Your task to perform on an android device: Open battery settings Image 0: 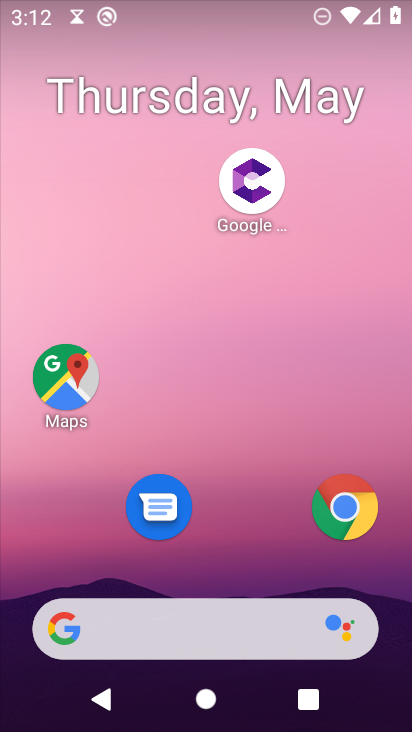
Step 0: drag from (258, 568) to (151, 210)
Your task to perform on an android device: Open battery settings Image 1: 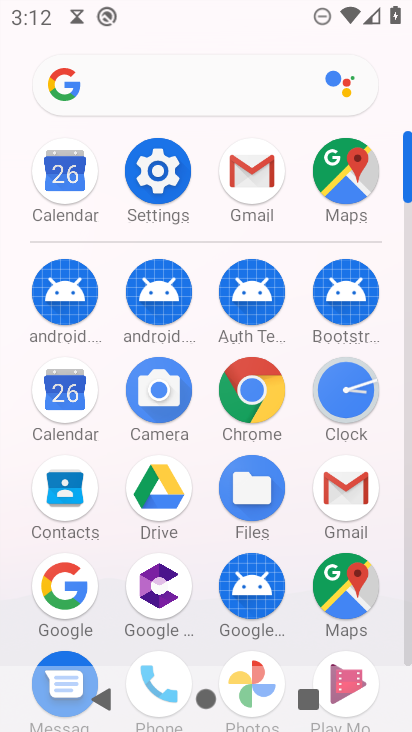
Step 1: click (152, 160)
Your task to perform on an android device: Open battery settings Image 2: 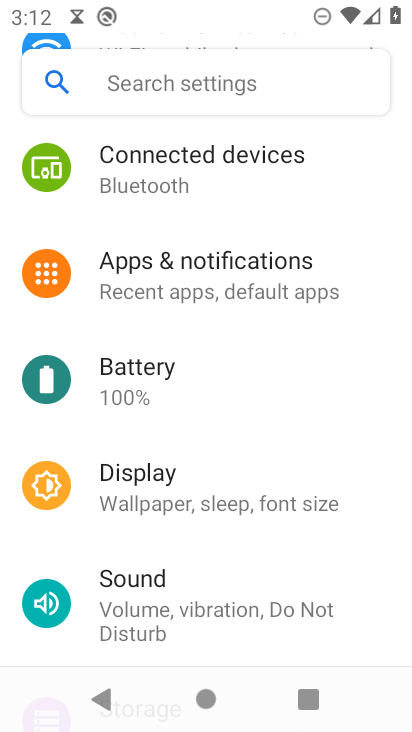
Step 2: click (161, 391)
Your task to perform on an android device: Open battery settings Image 3: 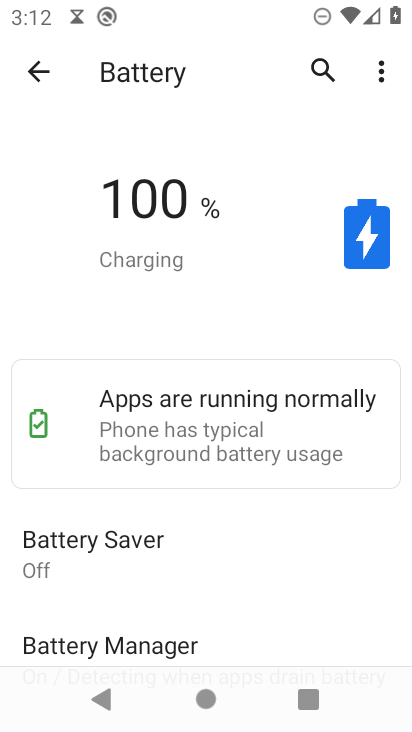
Step 3: task complete